Your task to perform on an android device: see tabs open on other devices in the chrome app Image 0: 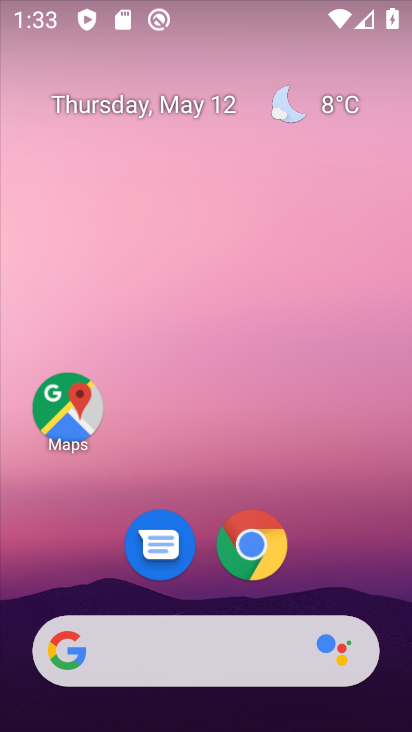
Step 0: click (217, 243)
Your task to perform on an android device: see tabs open on other devices in the chrome app Image 1: 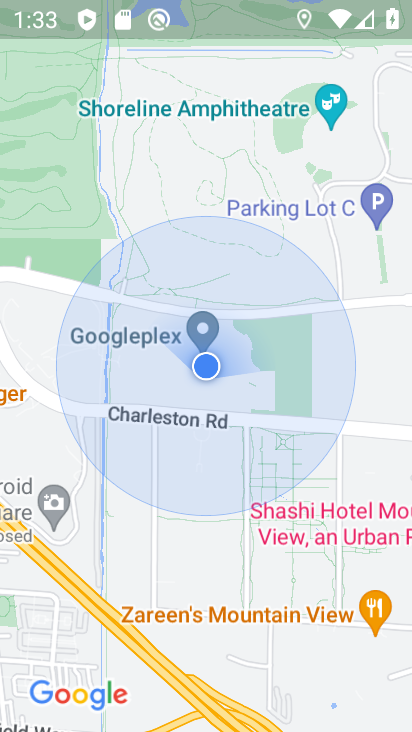
Step 1: click (268, 313)
Your task to perform on an android device: see tabs open on other devices in the chrome app Image 2: 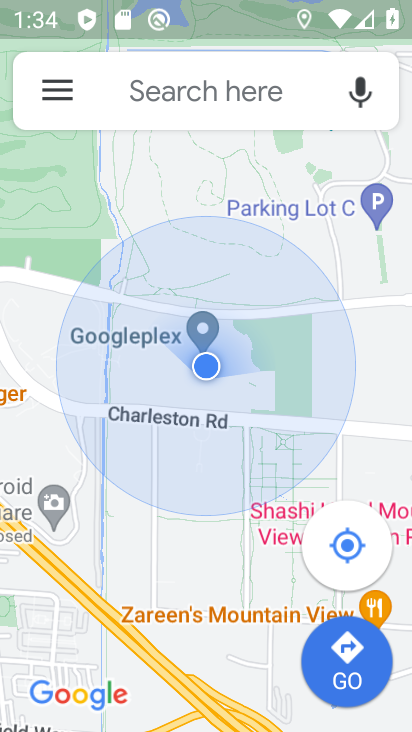
Step 2: drag from (228, 206) to (286, 483)
Your task to perform on an android device: see tabs open on other devices in the chrome app Image 3: 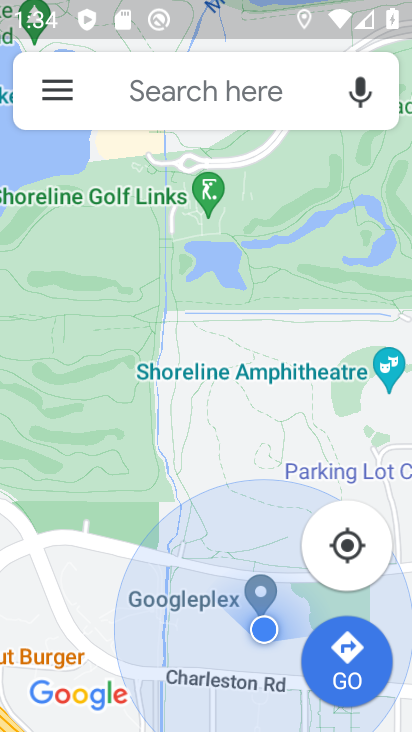
Step 3: drag from (177, 335) to (198, 50)
Your task to perform on an android device: see tabs open on other devices in the chrome app Image 4: 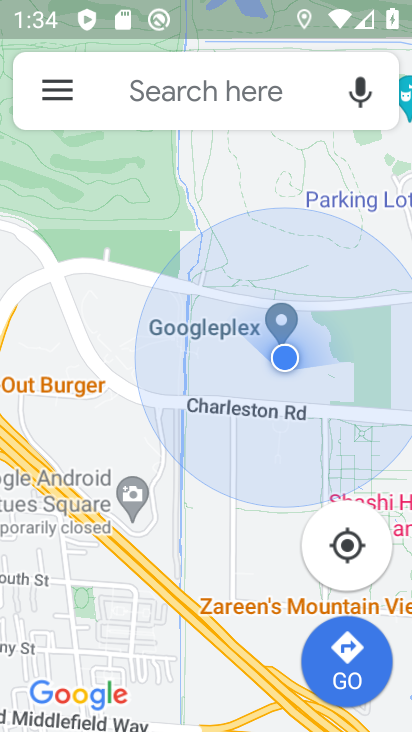
Step 4: click (51, 93)
Your task to perform on an android device: see tabs open on other devices in the chrome app Image 5: 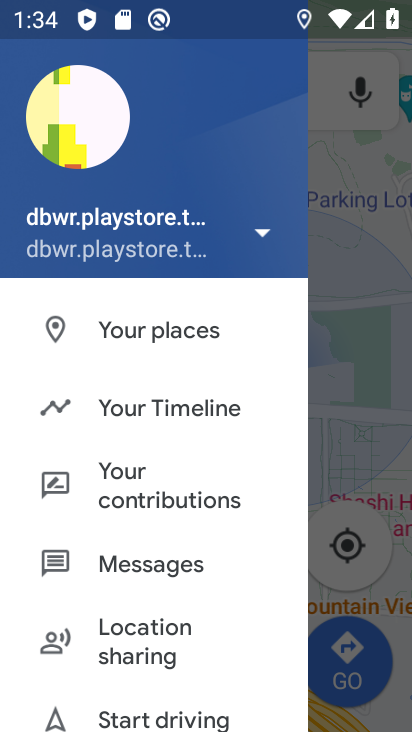
Step 5: click (376, 221)
Your task to perform on an android device: see tabs open on other devices in the chrome app Image 6: 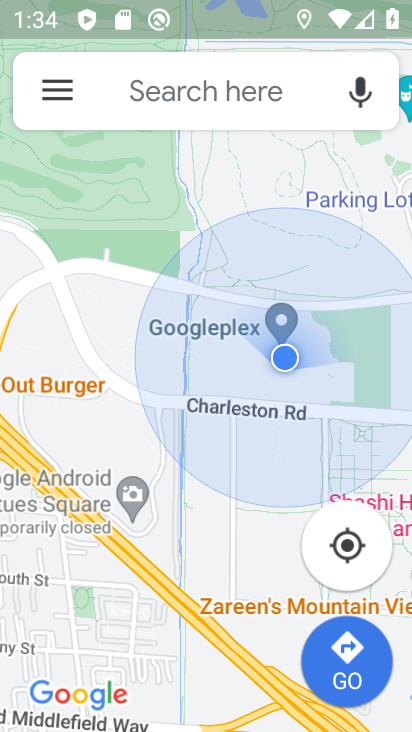
Step 6: press back button
Your task to perform on an android device: see tabs open on other devices in the chrome app Image 7: 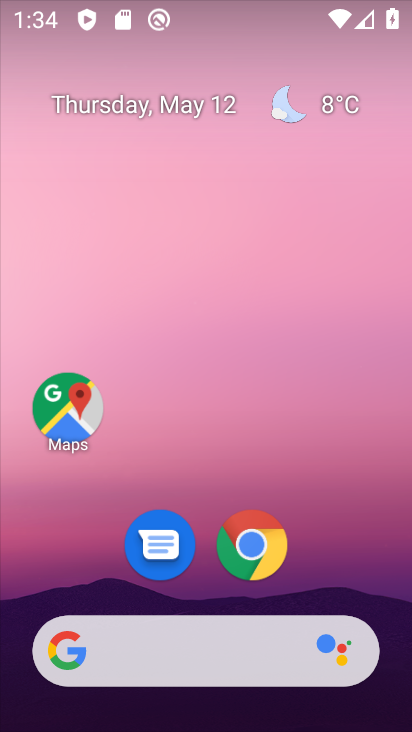
Step 7: drag from (181, 551) to (268, 212)
Your task to perform on an android device: see tabs open on other devices in the chrome app Image 8: 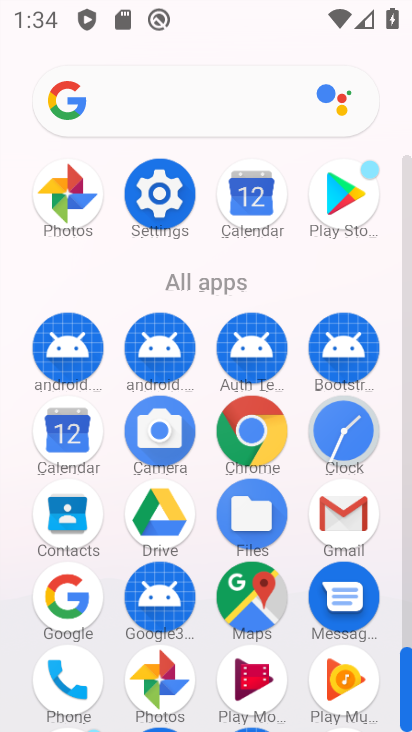
Step 8: click (259, 423)
Your task to perform on an android device: see tabs open on other devices in the chrome app Image 9: 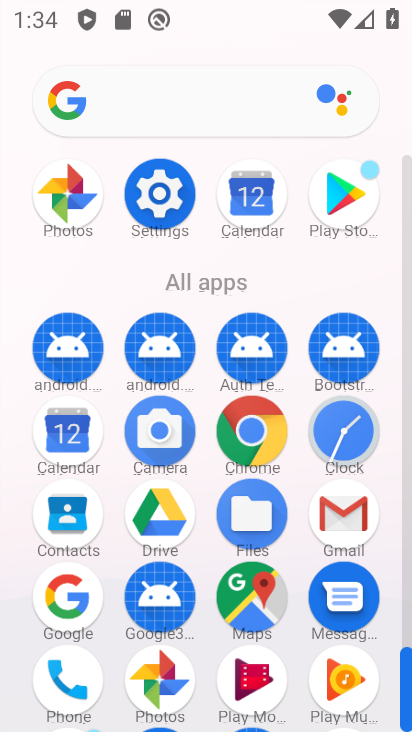
Step 9: click (259, 423)
Your task to perform on an android device: see tabs open on other devices in the chrome app Image 10: 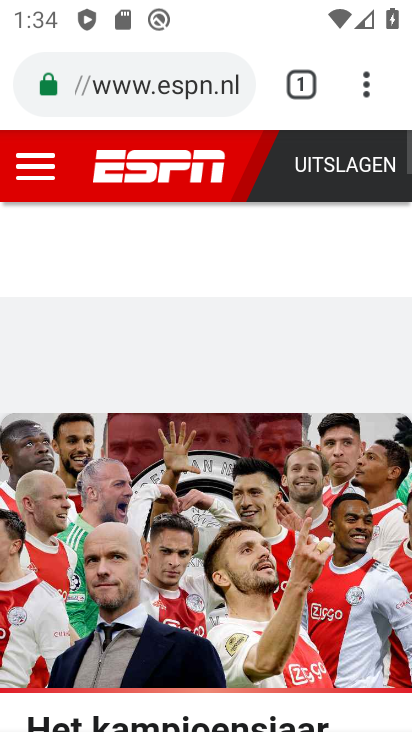
Step 10: drag from (362, 90) to (137, 401)
Your task to perform on an android device: see tabs open on other devices in the chrome app Image 11: 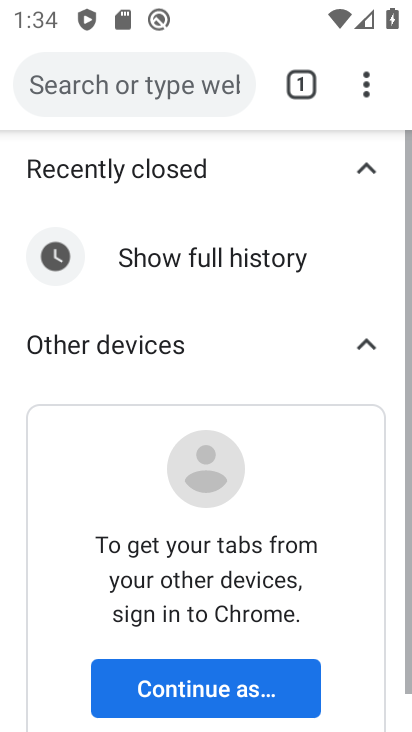
Step 11: click (307, 190)
Your task to perform on an android device: see tabs open on other devices in the chrome app Image 12: 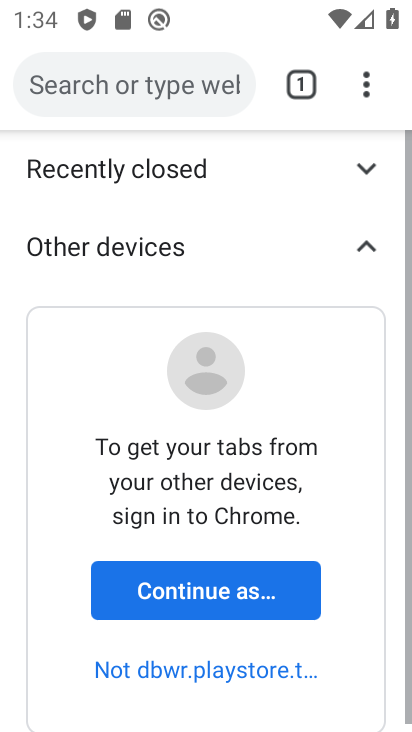
Step 12: task complete